Your task to perform on an android device: Open CNN.com Image 0: 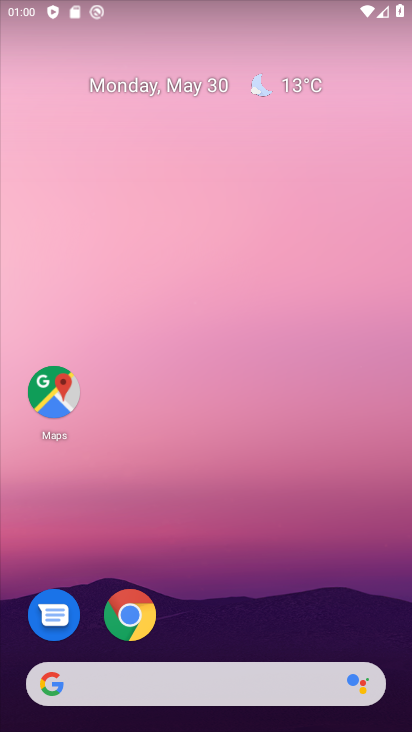
Step 0: click (114, 624)
Your task to perform on an android device: Open CNN.com Image 1: 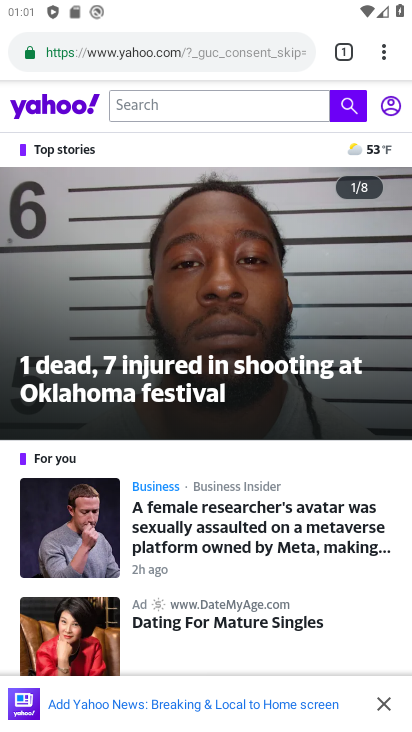
Step 1: click (338, 52)
Your task to perform on an android device: Open CNN.com Image 2: 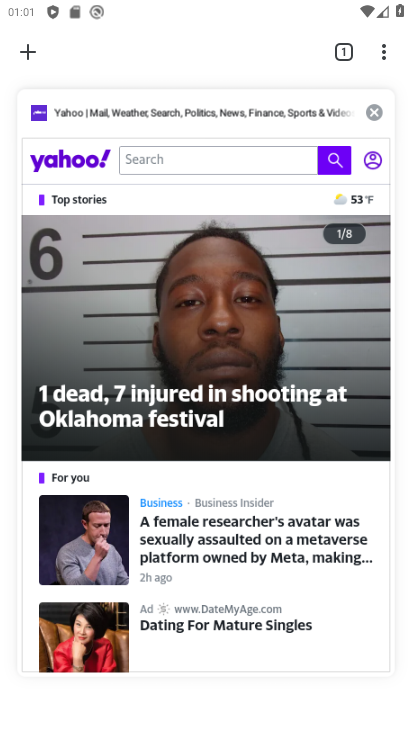
Step 2: click (27, 50)
Your task to perform on an android device: Open CNN.com Image 3: 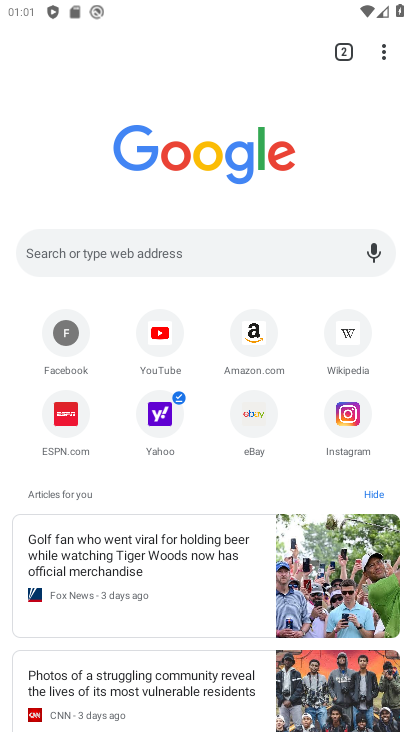
Step 3: click (142, 265)
Your task to perform on an android device: Open CNN.com Image 4: 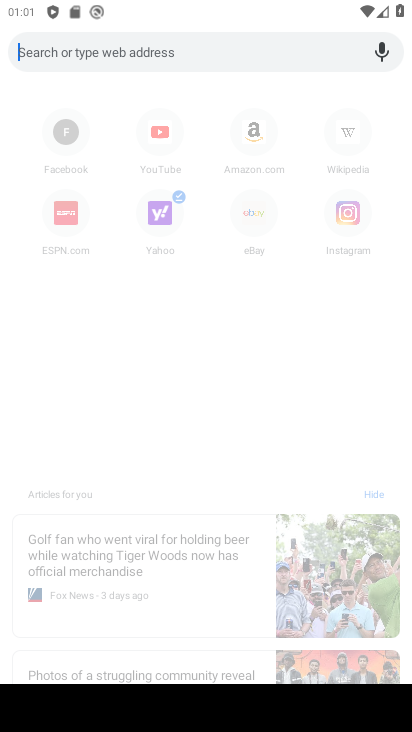
Step 4: type "cnn"
Your task to perform on an android device: Open CNN.com Image 5: 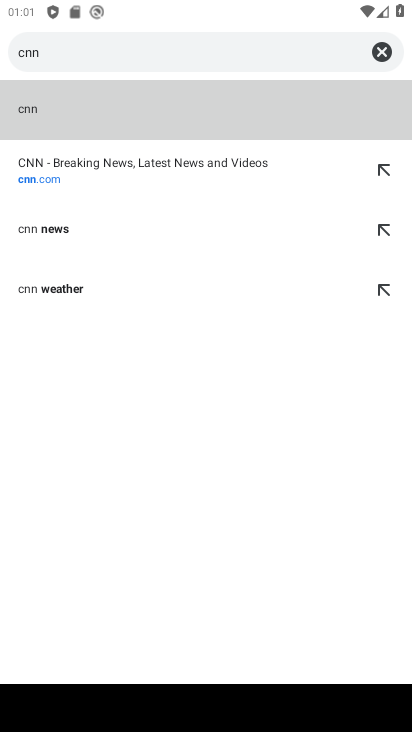
Step 5: click (60, 184)
Your task to perform on an android device: Open CNN.com Image 6: 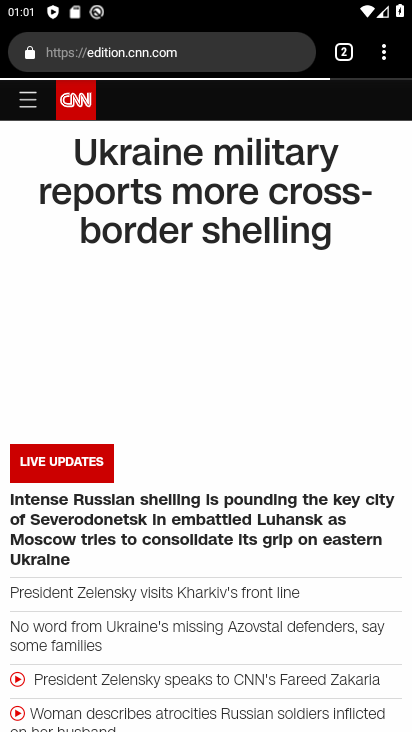
Step 6: task complete